Your task to perform on an android device: What's the weather going to be this weekend? Image 0: 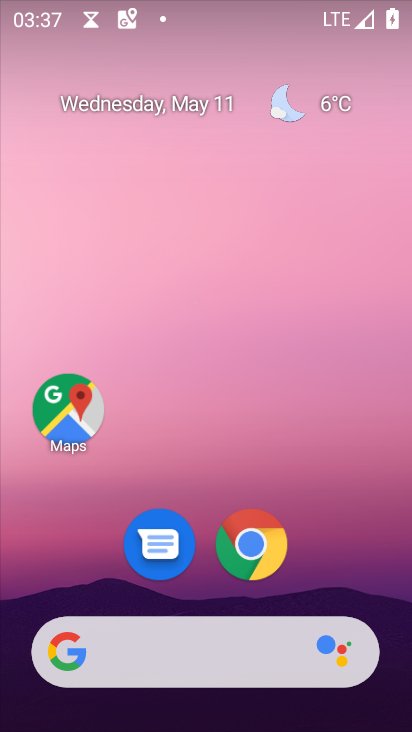
Step 0: drag from (322, 603) to (293, 50)
Your task to perform on an android device: What's the weather going to be this weekend? Image 1: 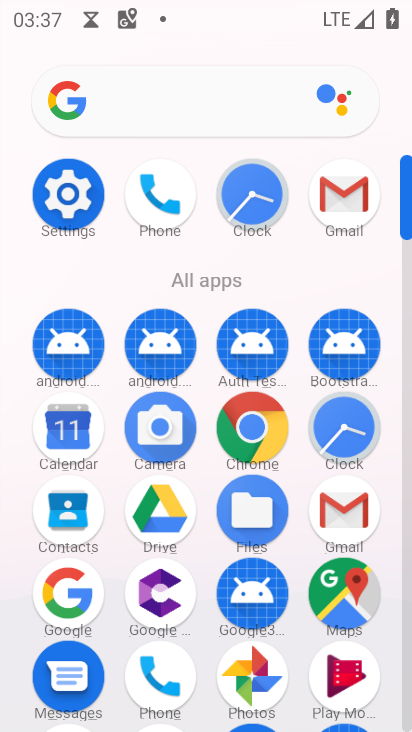
Step 1: click (185, 101)
Your task to perform on an android device: What's the weather going to be this weekend? Image 2: 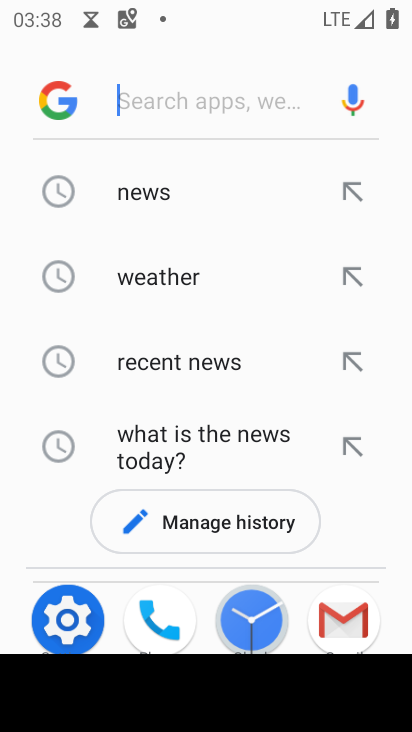
Step 2: type "what's the weather going to be this weekend"
Your task to perform on an android device: What's the weather going to be this weekend? Image 3: 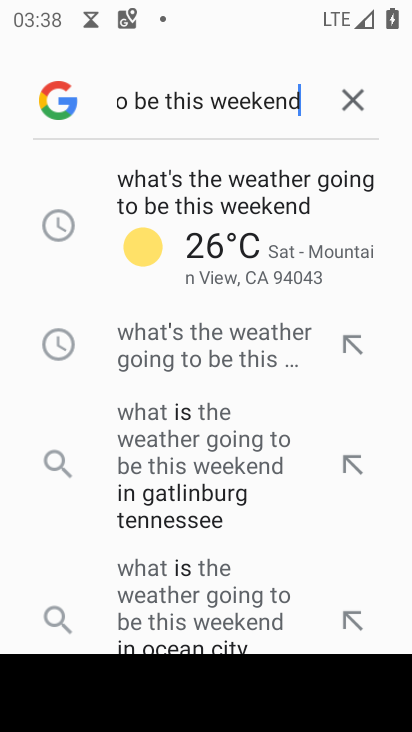
Step 3: click (261, 217)
Your task to perform on an android device: What's the weather going to be this weekend? Image 4: 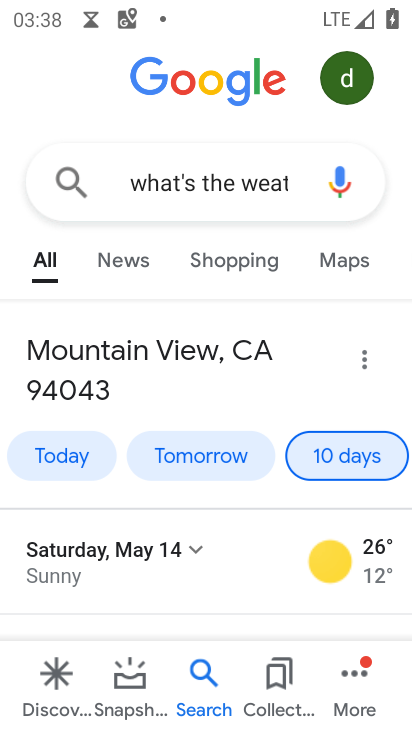
Step 4: task complete